Your task to perform on an android device: Open notification settings Image 0: 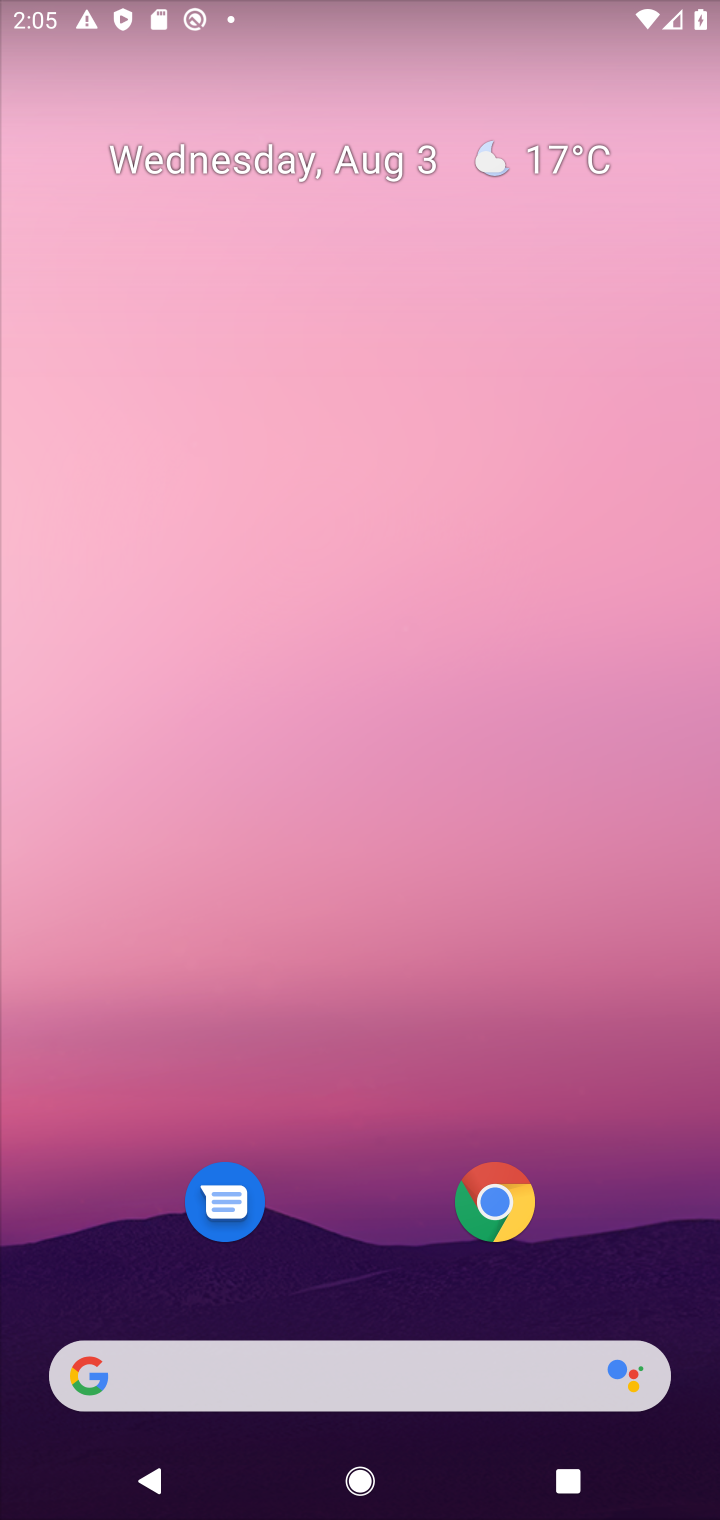
Step 0: drag from (347, 1114) to (366, 3)
Your task to perform on an android device: Open notification settings Image 1: 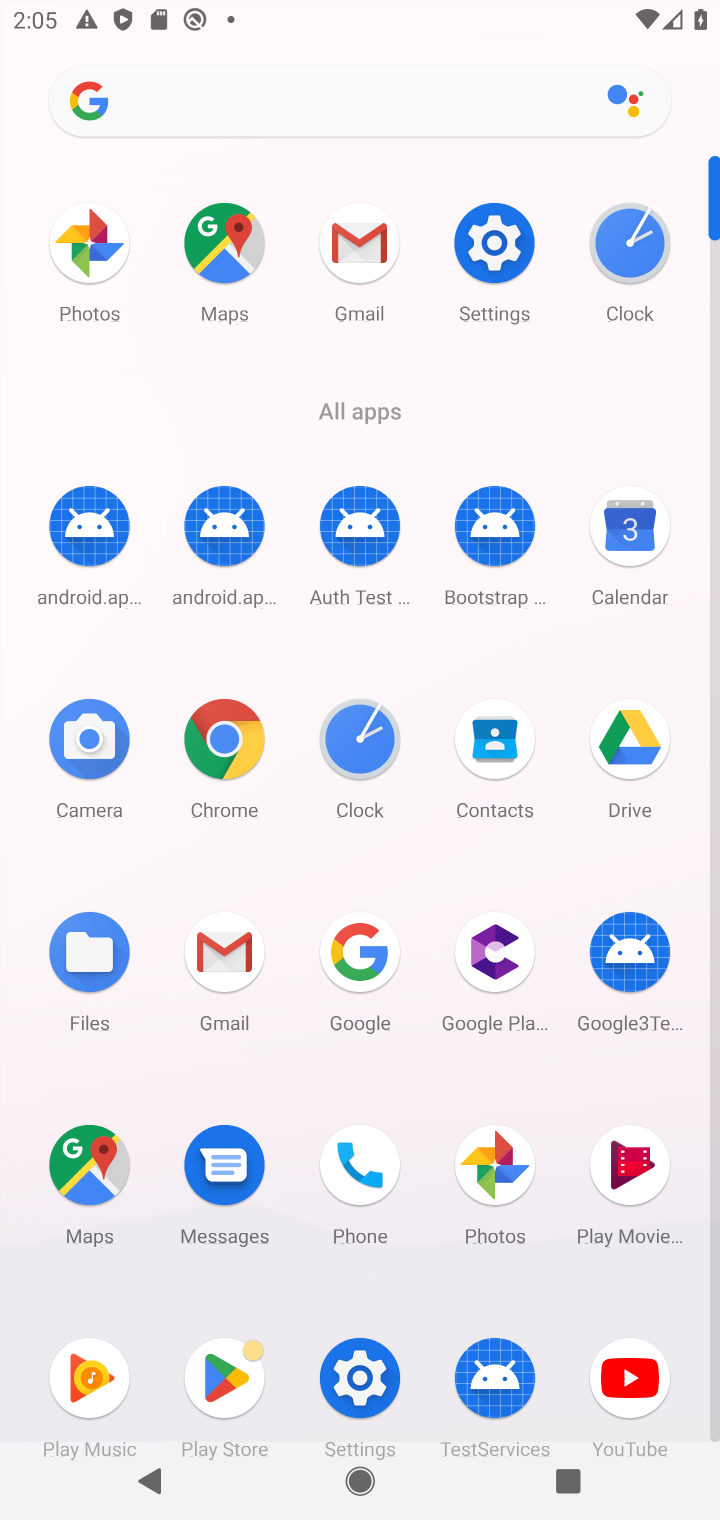
Step 1: click (489, 257)
Your task to perform on an android device: Open notification settings Image 2: 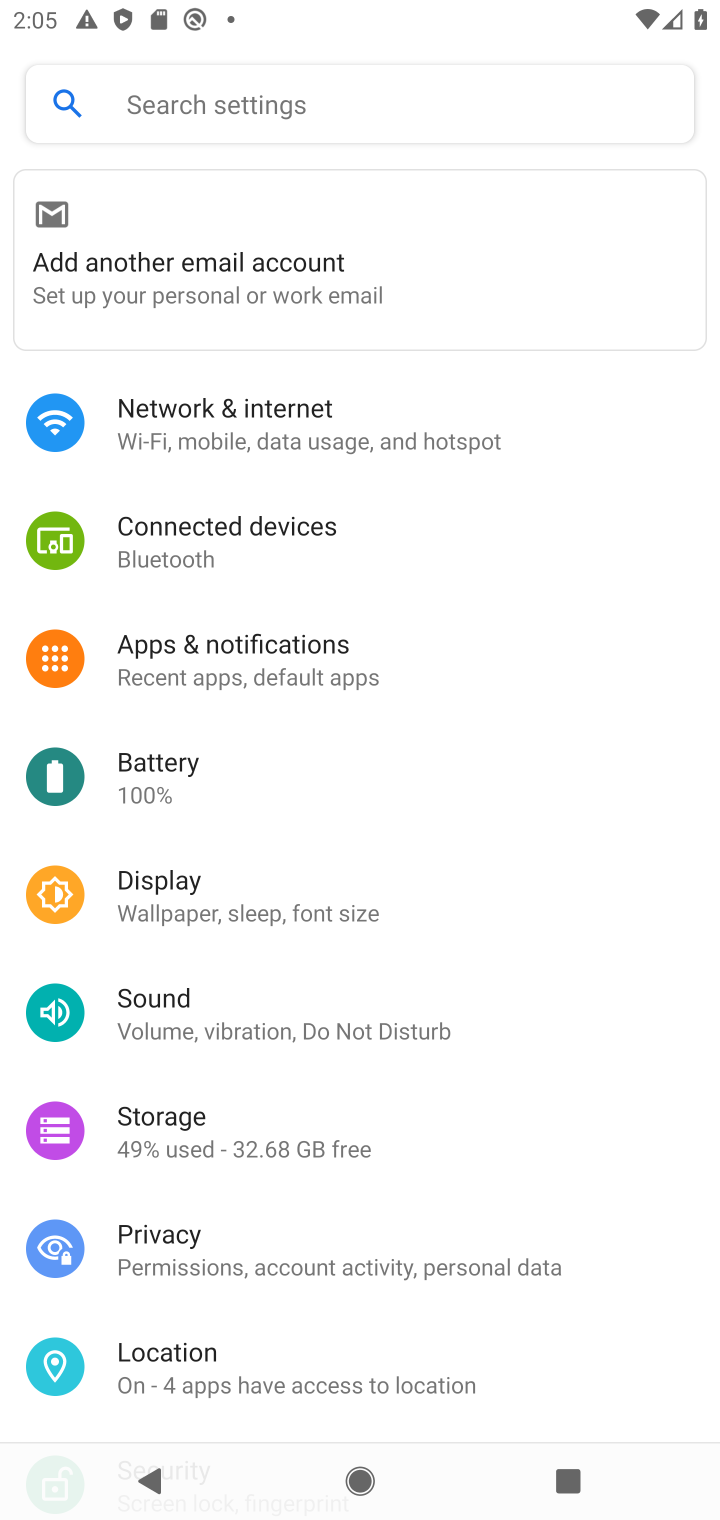
Step 2: click (239, 676)
Your task to perform on an android device: Open notification settings Image 3: 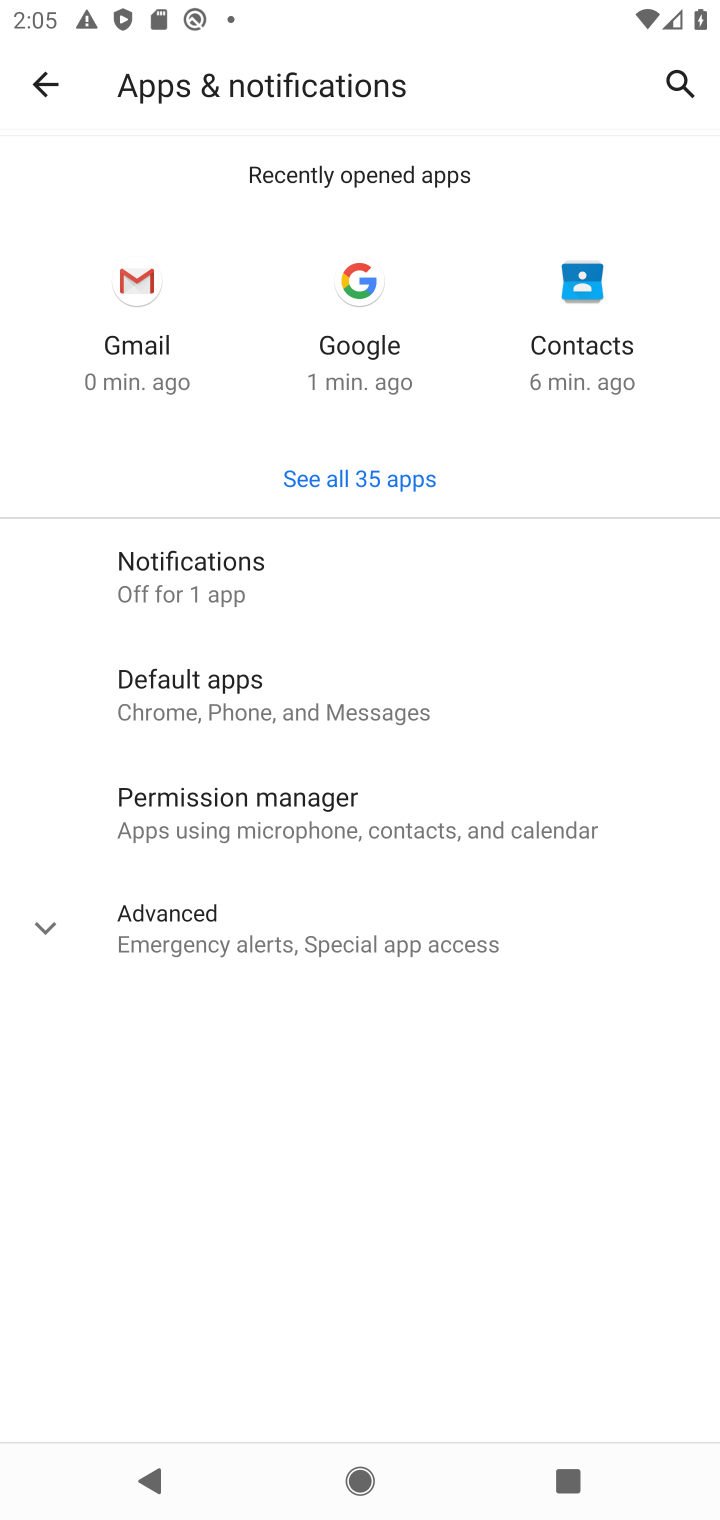
Step 3: click (205, 566)
Your task to perform on an android device: Open notification settings Image 4: 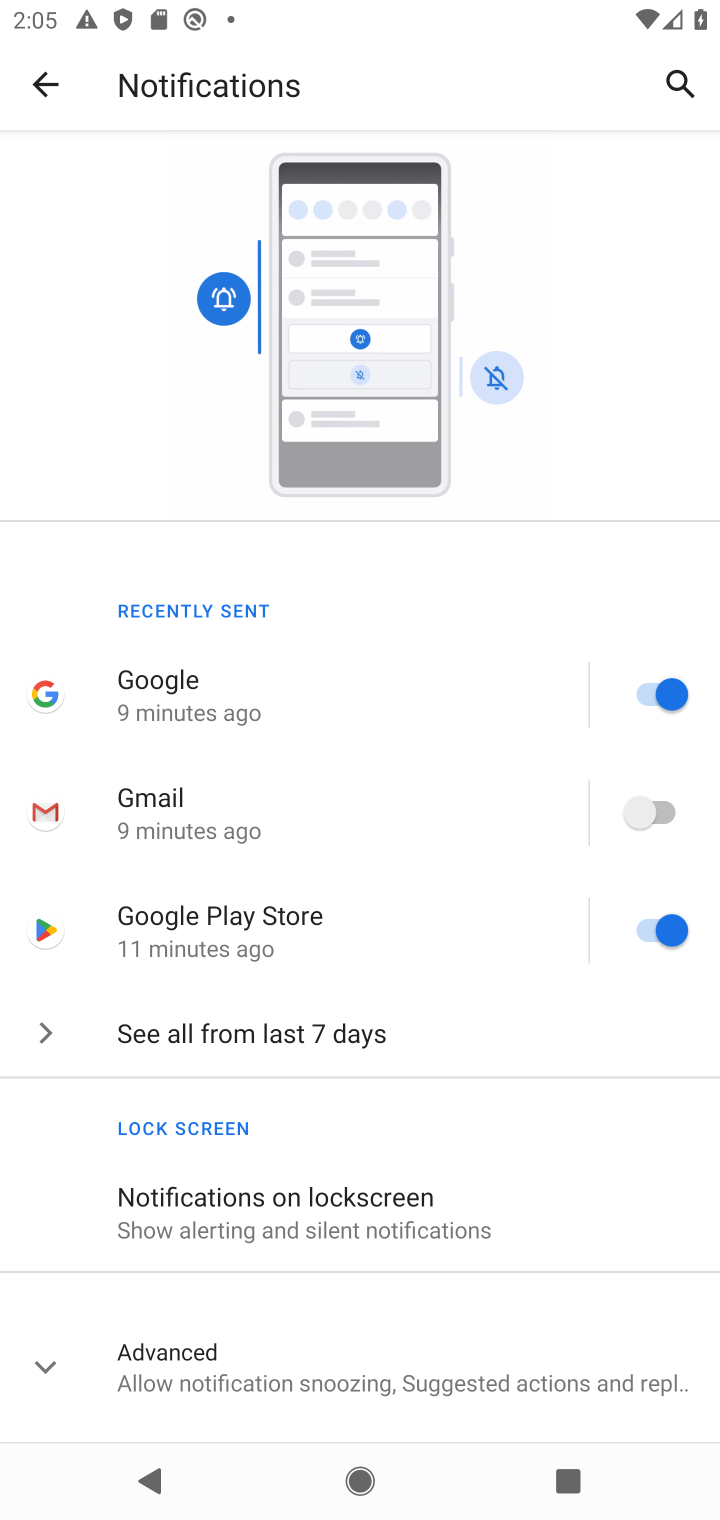
Step 4: task complete